Your task to perform on an android device: turn off improve location accuracy Image 0: 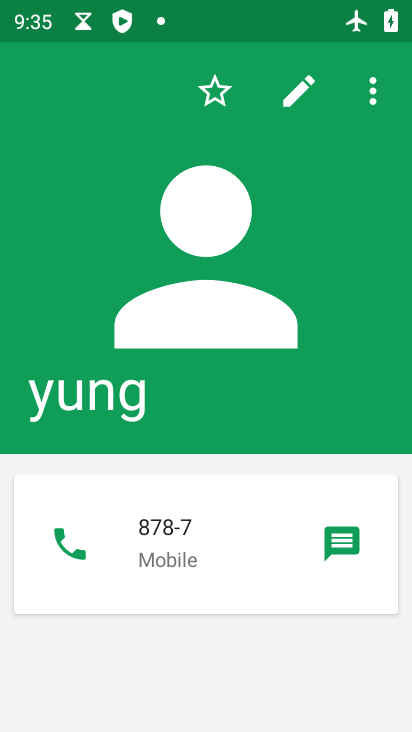
Step 0: press home button
Your task to perform on an android device: turn off improve location accuracy Image 1: 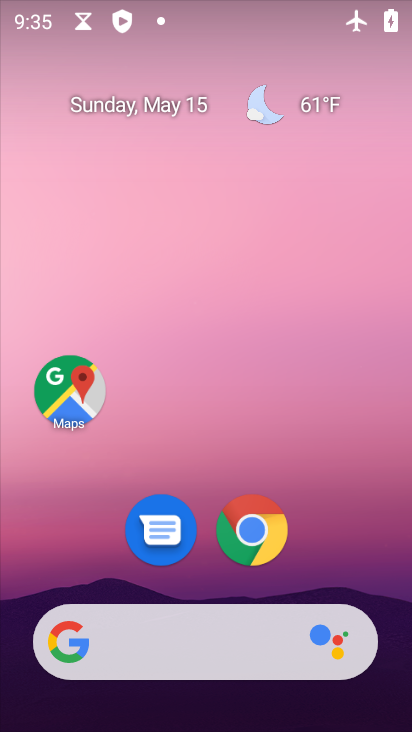
Step 1: drag from (213, 726) to (217, 79)
Your task to perform on an android device: turn off improve location accuracy Image 2: 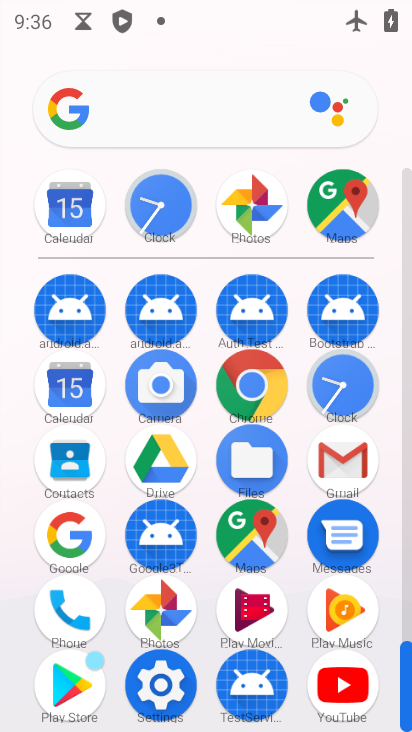
Step 2: drag from (121, 668) to (129, 261)
Your task to perform on an android device: turn off improve location accuracy Image 3: 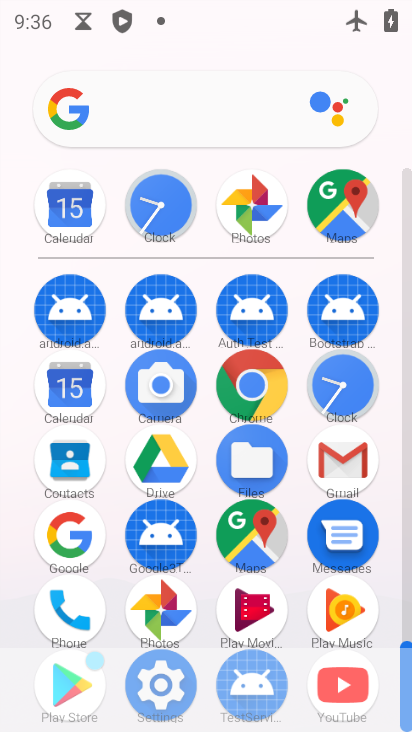
Step 3: click (164, 664)
Your task to perform on an android device: turn off improve location accuracy Image 4: 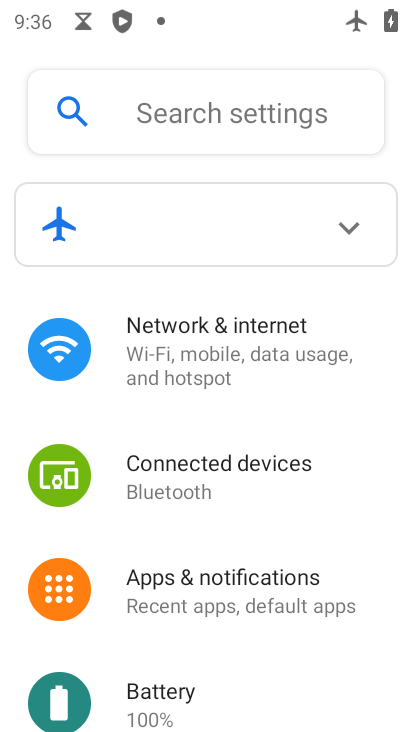
Step 4: drag from (267, 666) to (252, 244)
Your task to perform on an android device: turn off improve location accuracy Image 5: 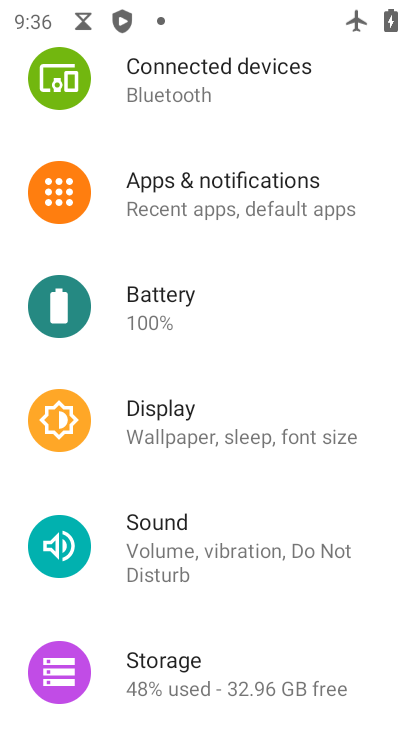
Step 5: drag from (191, 629) to (206, 228)
Your task to perform on an android device: turn off improve location accuracy Image 6: 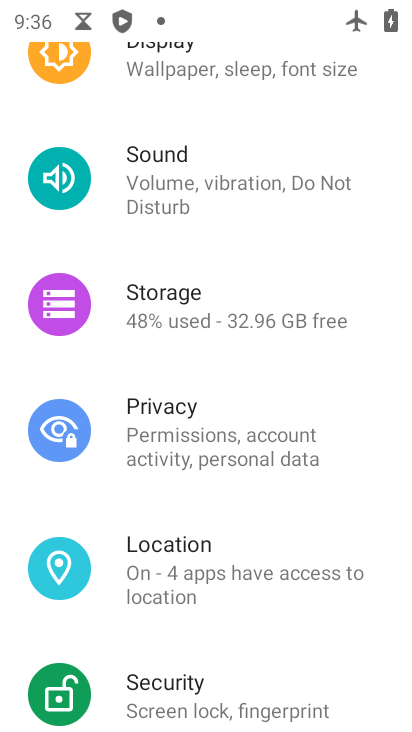
Step 6: click (196, 579)
Your task to perform on an android device: turn off improve location accuracy Image 7: 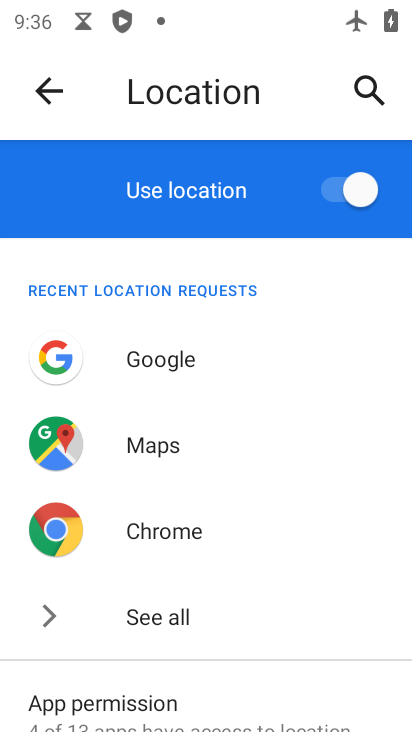
Step 7: drag from (199, 706) to (207, 274)
Your task to perform on an android device: turn off improve location accuracy Image 8: 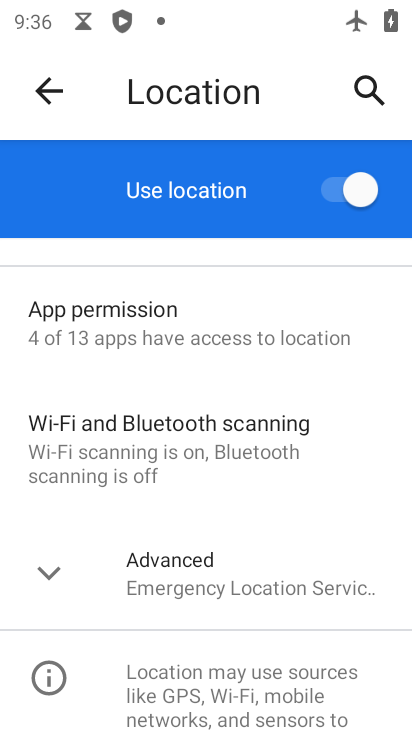
Step 8: click (171, 573)
Your task to perform on an android device: turn off improve location accuracy Image 9: 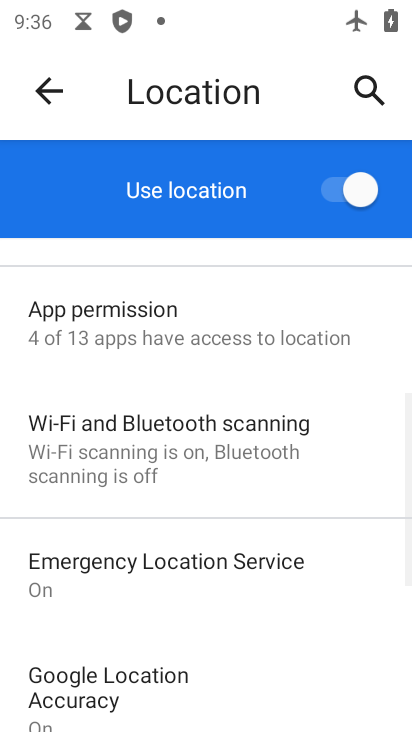
Step 9: drag from (197, 675) to (209, 424)
Your task to perform on an android device: turn off improve location accuracy Image 10: 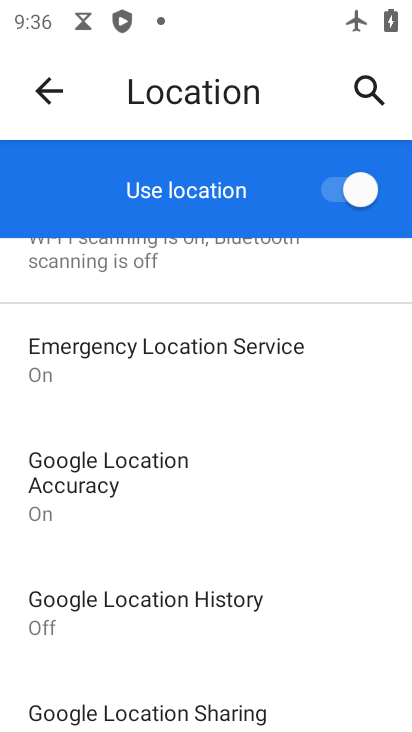
Step 10: click (81, 468)
Your task to perform on an android device: turn off improve location accuracy Image 11: 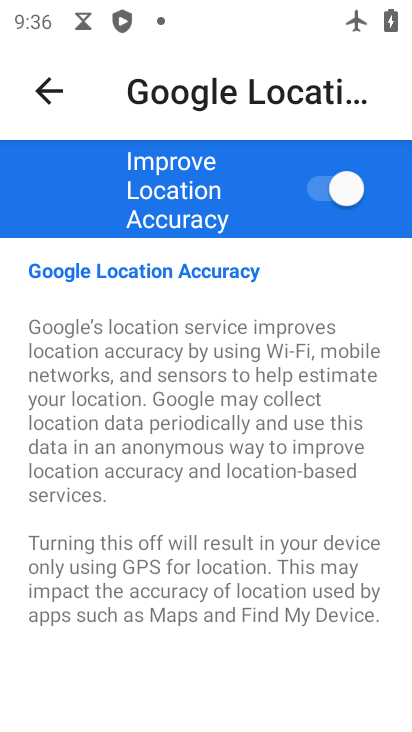
Step 11: click (317, 188)
Your task to perform on an android device: turn off improve location accuracy Image 12: 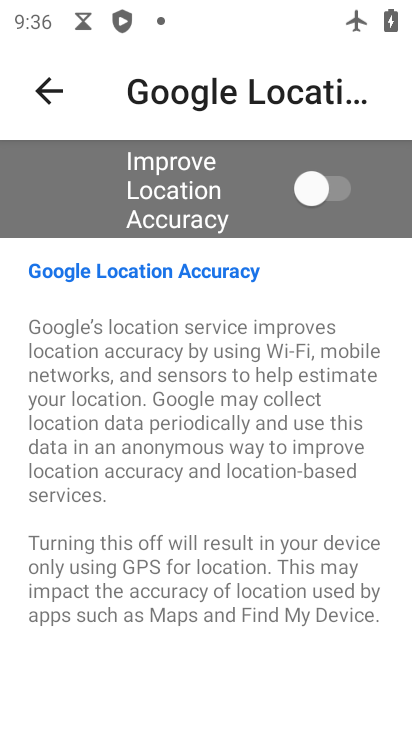
Step 12: task complete